Your task to perform on an android device: turn notification dots on Image 0: 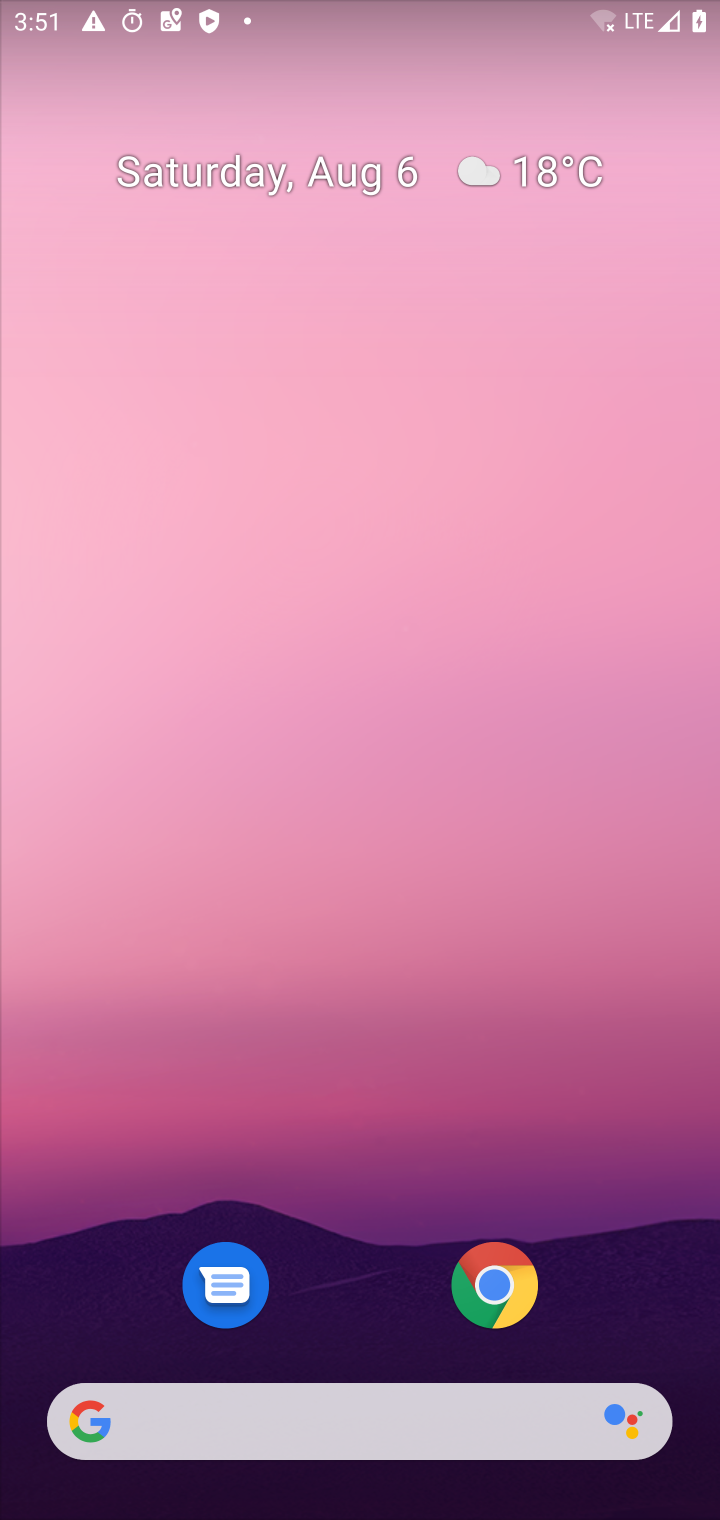
Step 0: press home button
Your task to perform on an android device: turn notification dots on Image 1: 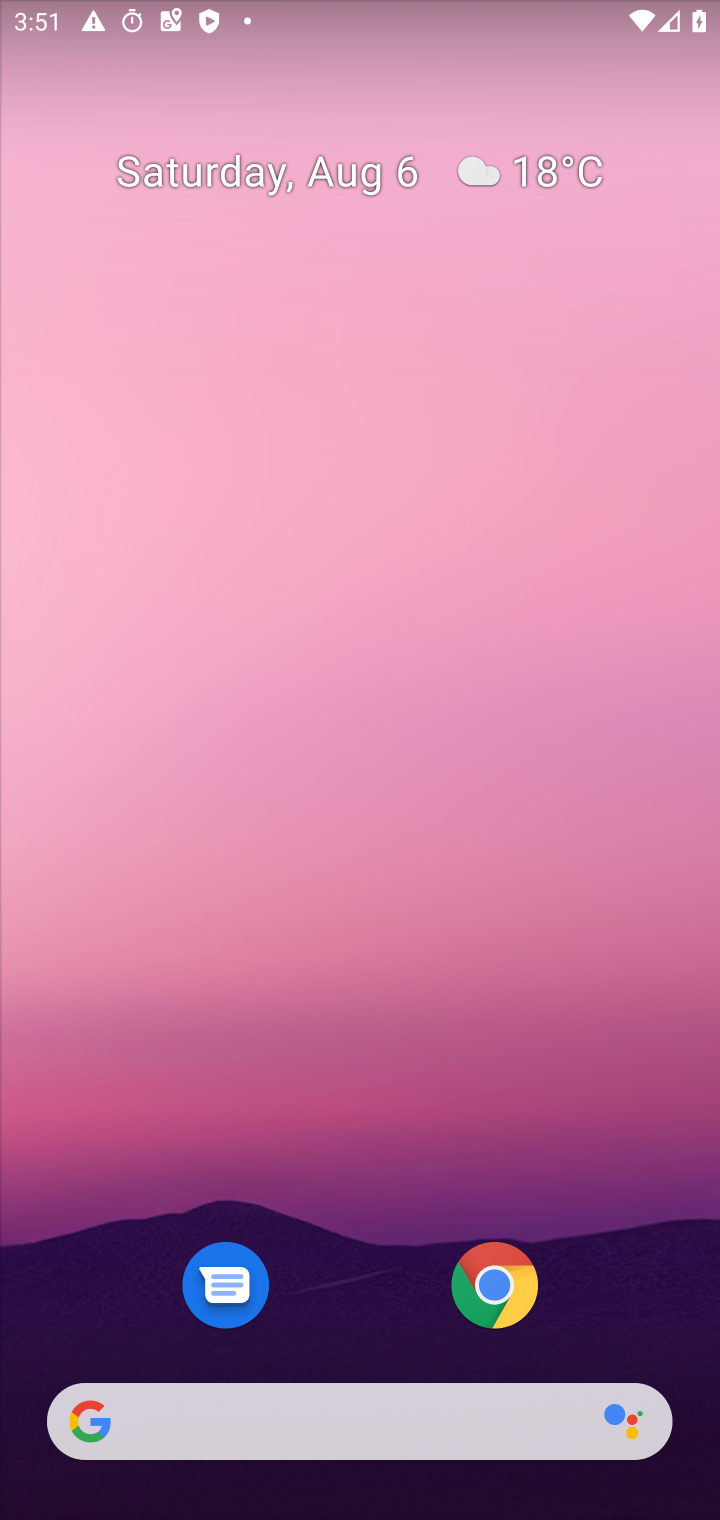
Step 1: drag from (372, 1134) to (359, 234)
Your task to perform on an android device: turn notification dots on Image 2: 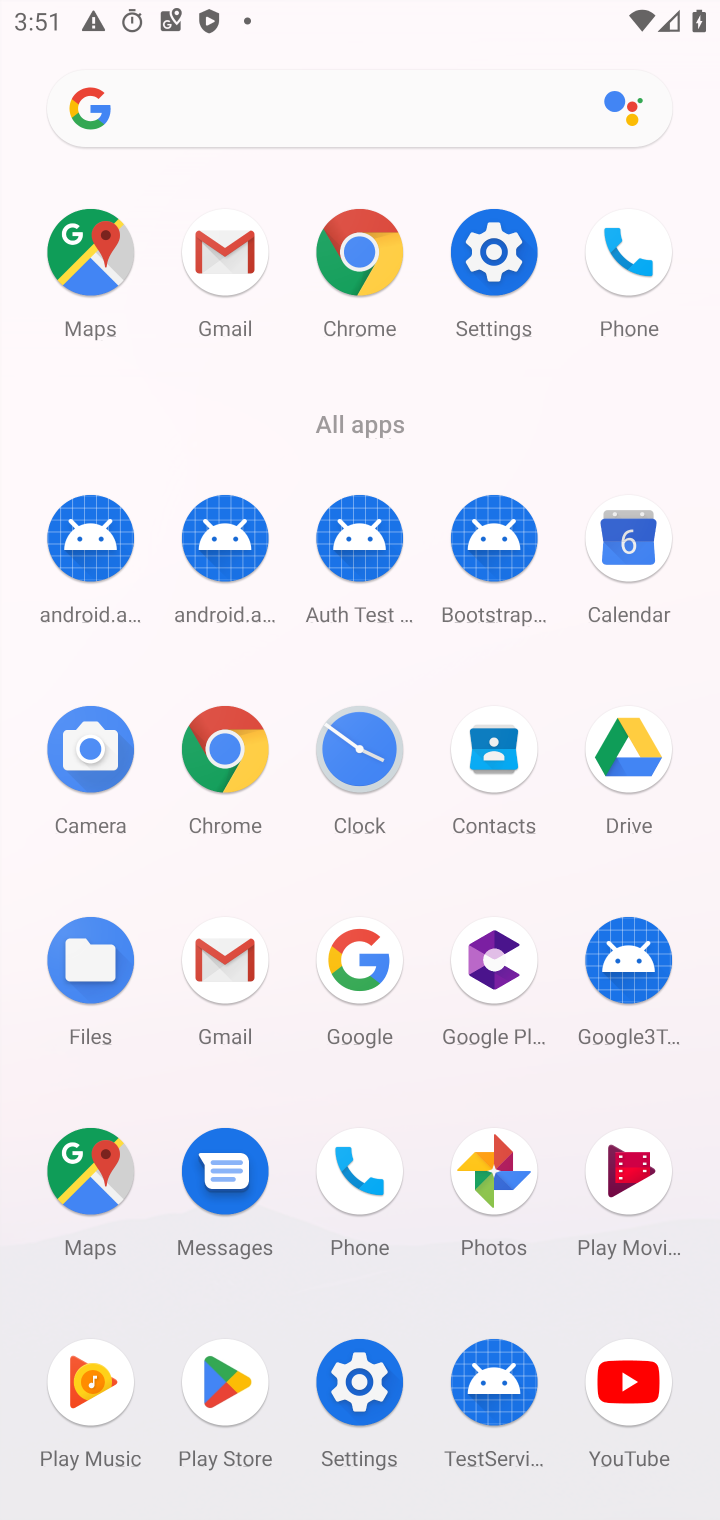
Step 2: click (486, 251)
Your task to perform on an android device: turn notification dots on Image 3: 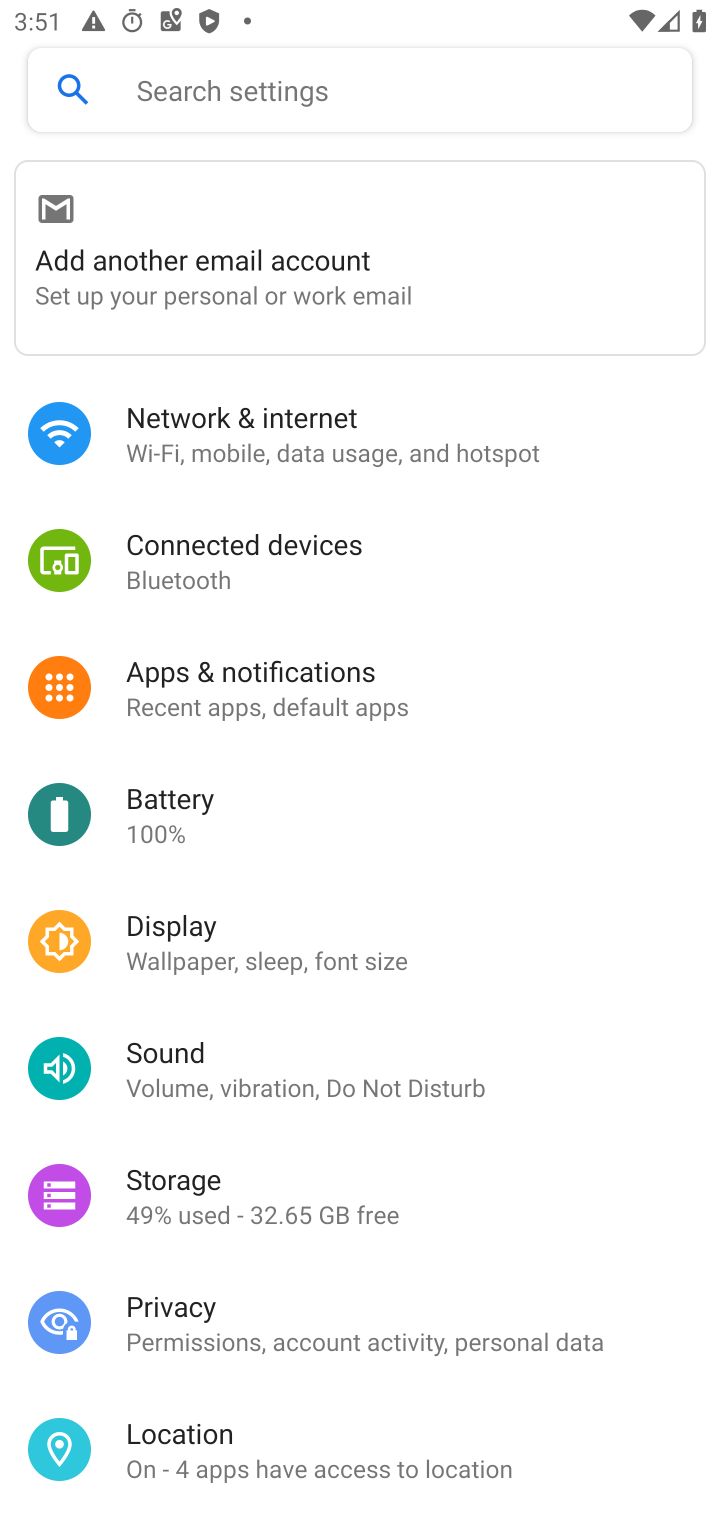
Step 3: click (410, 676)
Your task to perform on an android device: turn notification dots on Image 4: 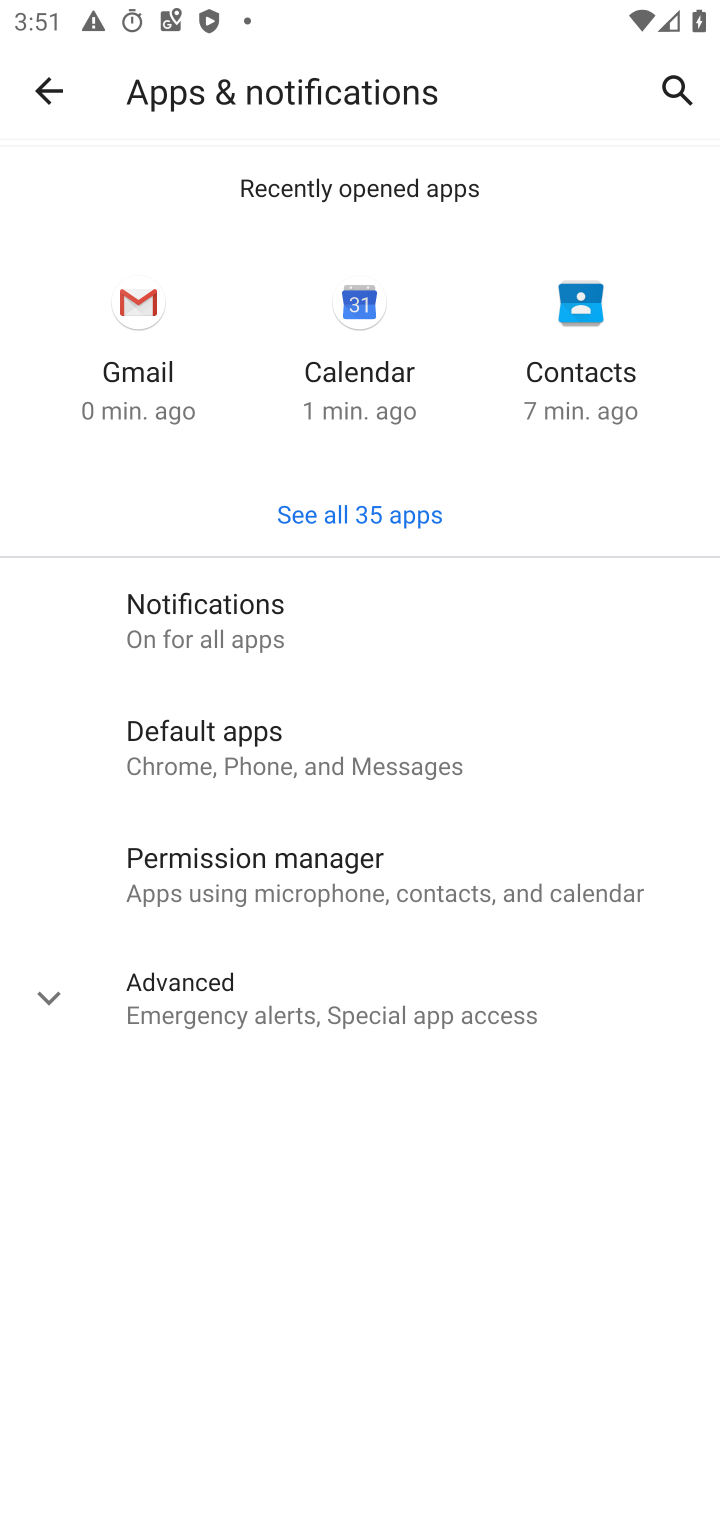
Step 4: click (318, 612)
Your task to perform on an android device: turn notification dots on Image 5: 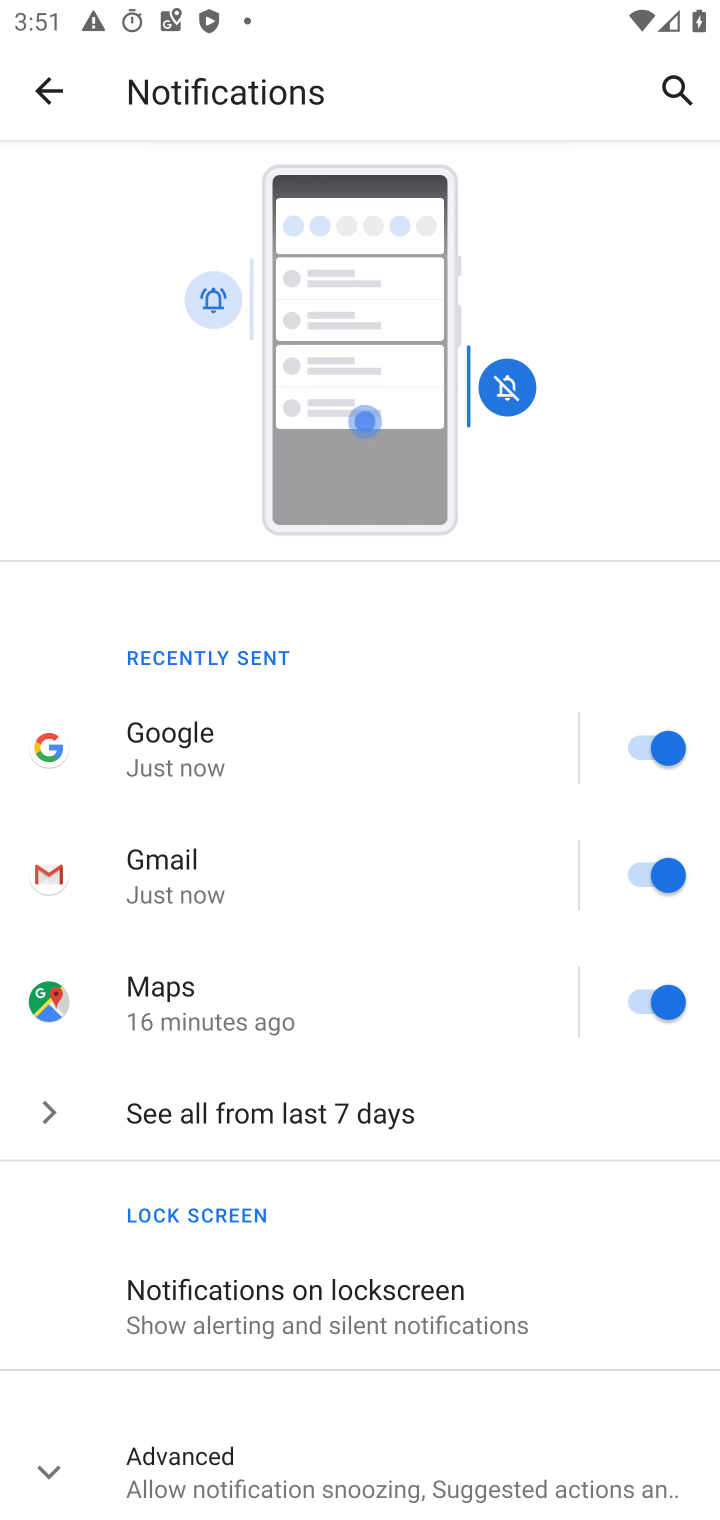
Step 5: click (55, 1453)
Your task to perform on an android device: turn notification dots on Image 6: 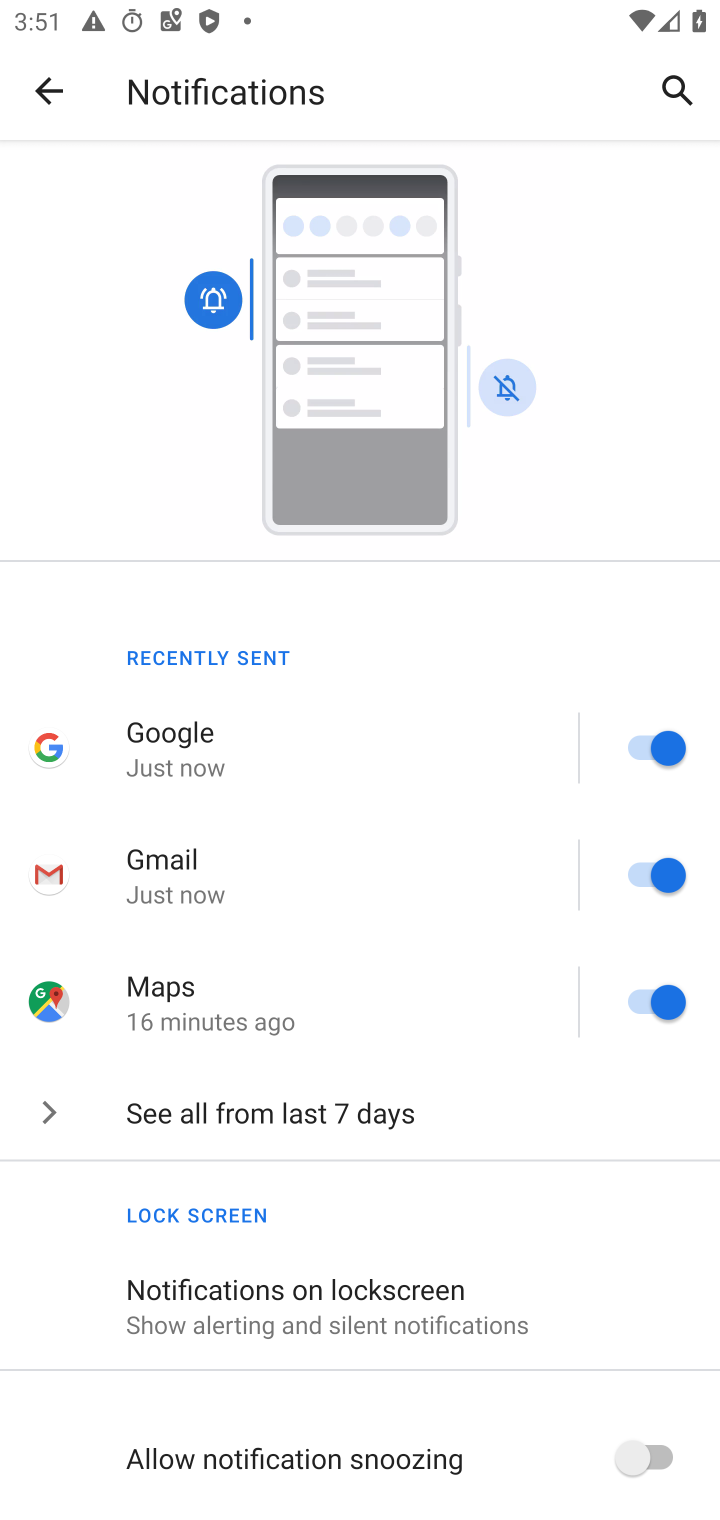
Step 6: drag from (371, 1394) to (385, 414)
Your task to perform on an android device: turn notification dots on Image 7: 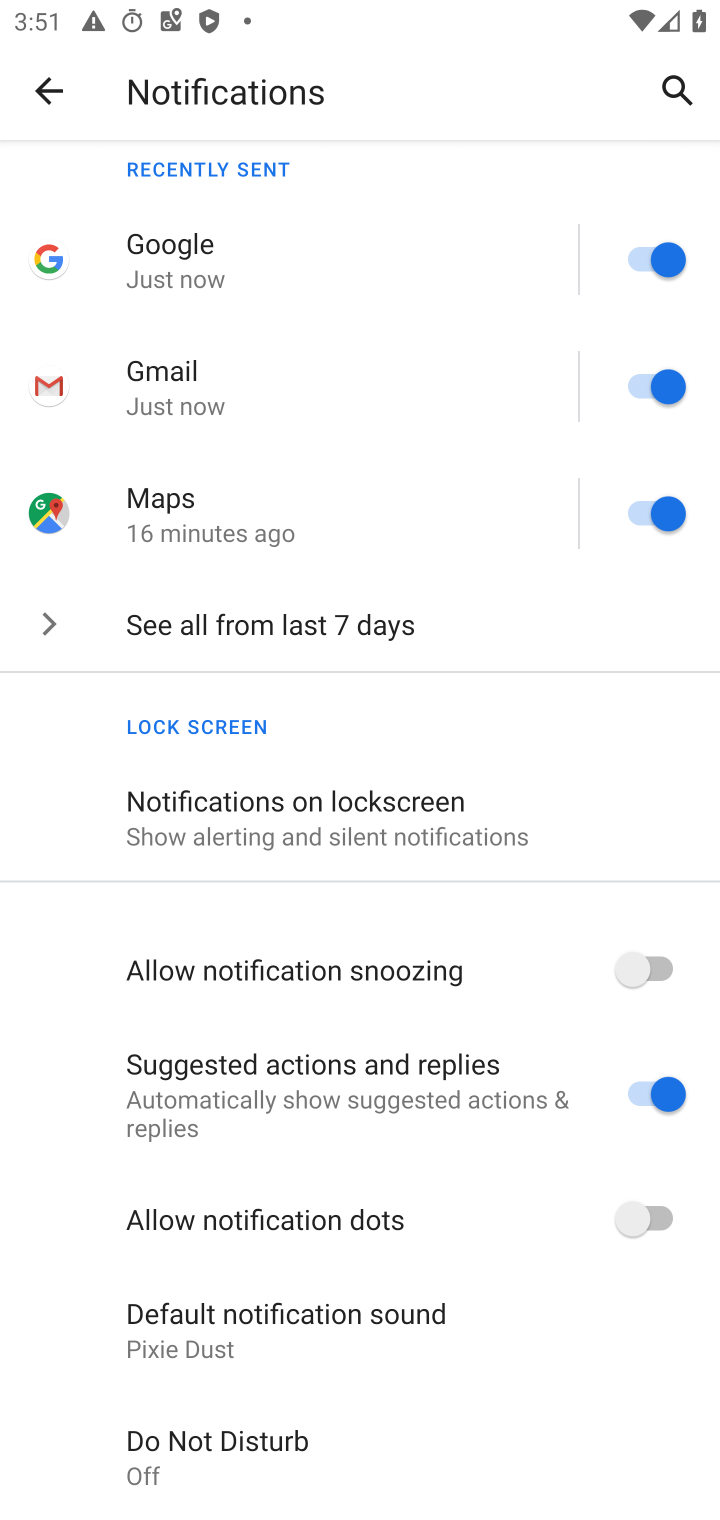
Step 7: click (651, 1201)
Your task to perform on an android device: turn notification dots on Image 8: 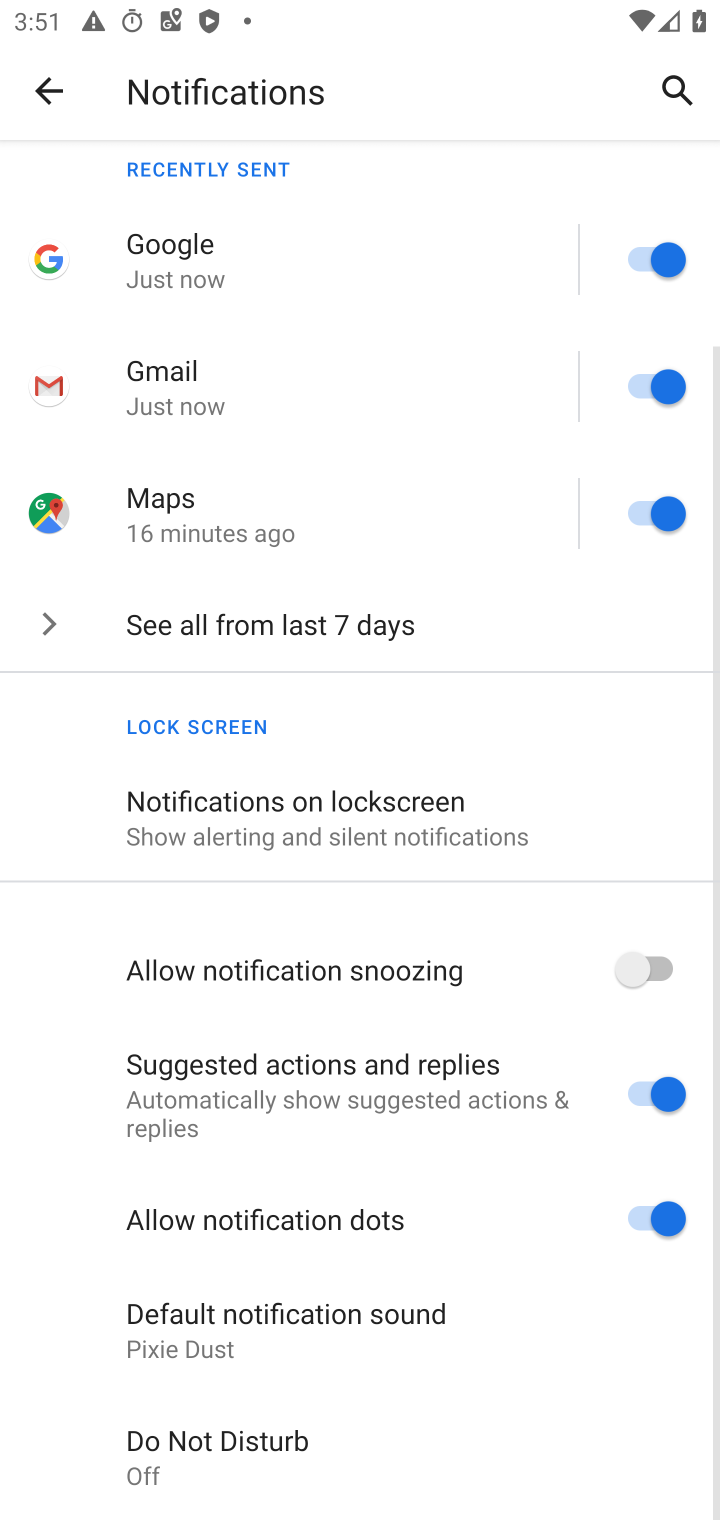
Step 8: task complete